Your task to perform on an android device: turn smart compose on in the gmail app Image 0: 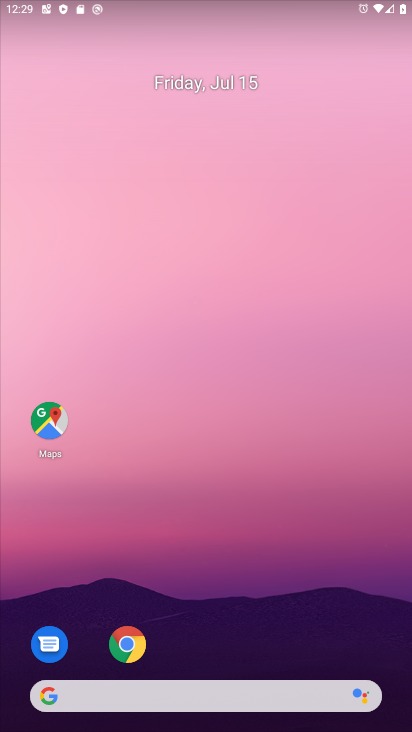
Step 0: drag from (385, 666) to (246, 13)
Your task to perform on an android device: turn smart compose on in the gmail app Image 1: 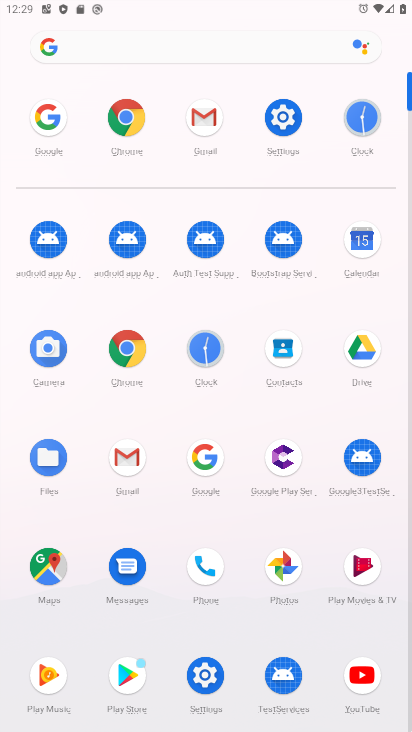
Step 1: click (112, 458)
Your task to perform on an android device: turn smart compose on in the gmail app Image 2: 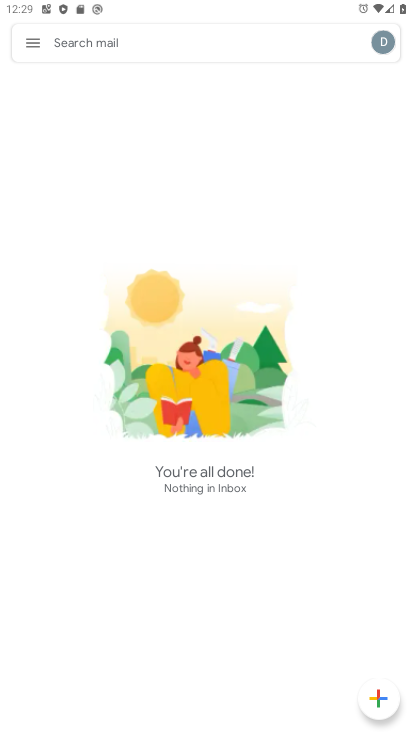
Step 2: click (38, 48)
Your task to perform on an android device: turn smart compose on in the gmail app Image 3: 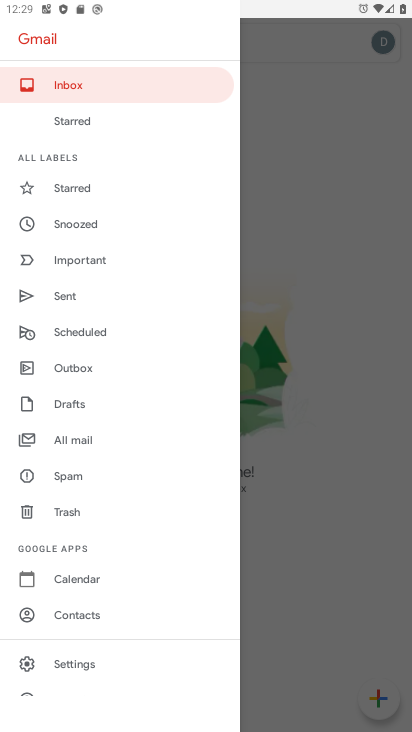
Step 3: click (98, 664)
Your task to perform on an android device: turn smart compose on in the gmail app Image 4: 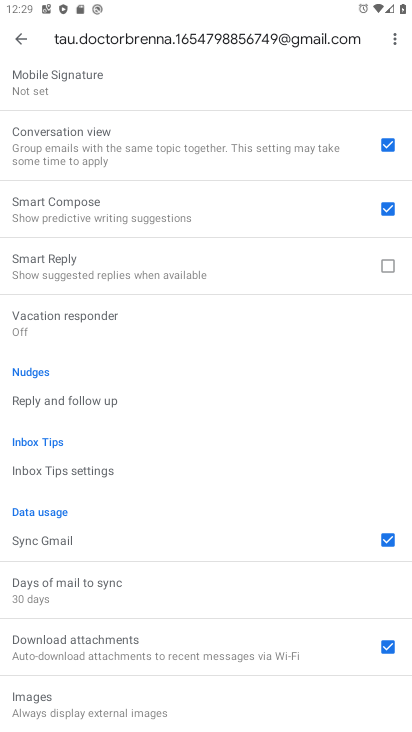
Step 4: task complete